Your task to perform on an android device: toggle notifications settings in the gmail app Image 0: 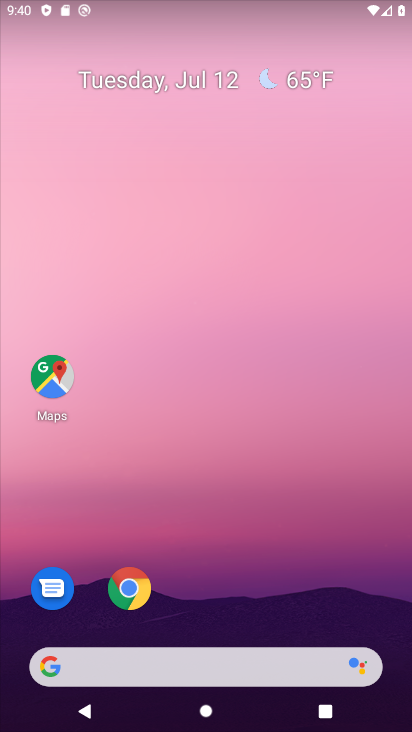
Step 0: drag from (39, 706) to (411, 331)
Your task to perform on an android device: toggle notifications settings in the gmail app Image 1: 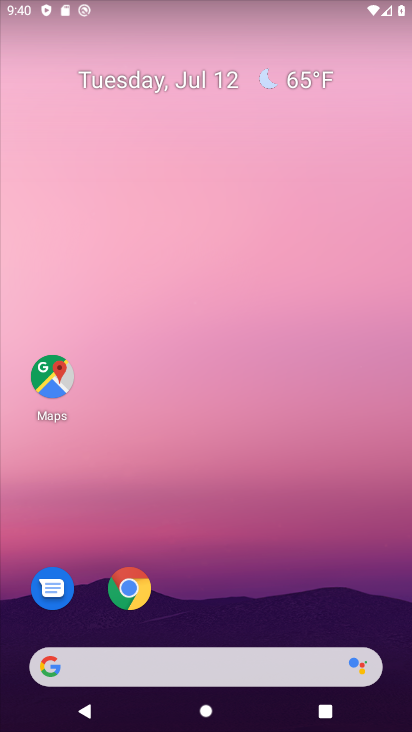
Step 1: drag from (43, 694) to (403, 332)
Your task to perform on an android device: toggle notifications settings in the gmail app Image 2: 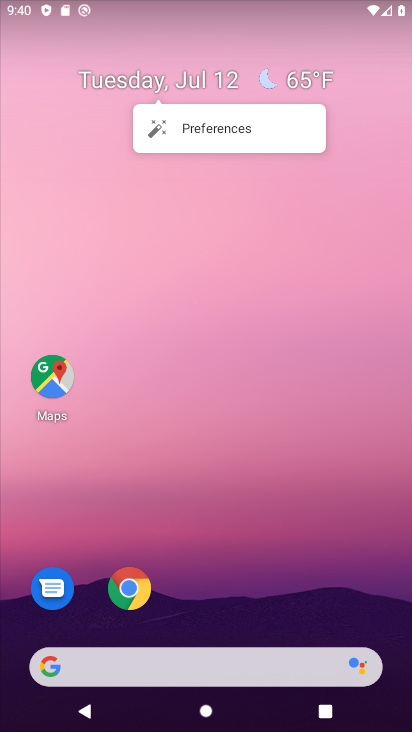
Step 2: drag from (17, 701) to (272, 9)
Your task to perform on an android device: toggle notifications settings in the gmail app Image 3: 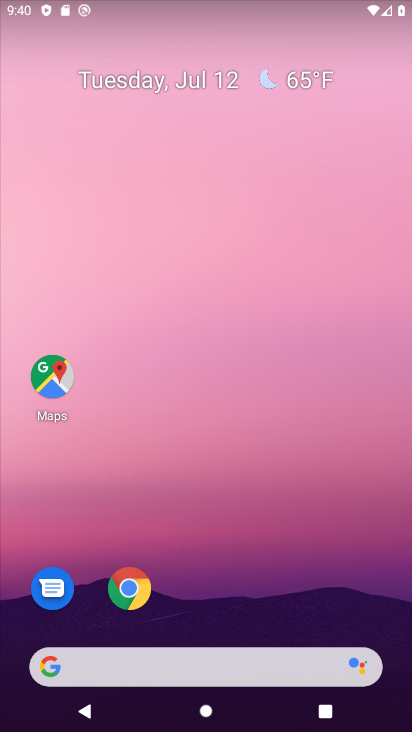
Step 3: drag from (16, 714) to (188, 125)
Your task to perform on an android device: toggle notifications settings in the gmail app Image 4: 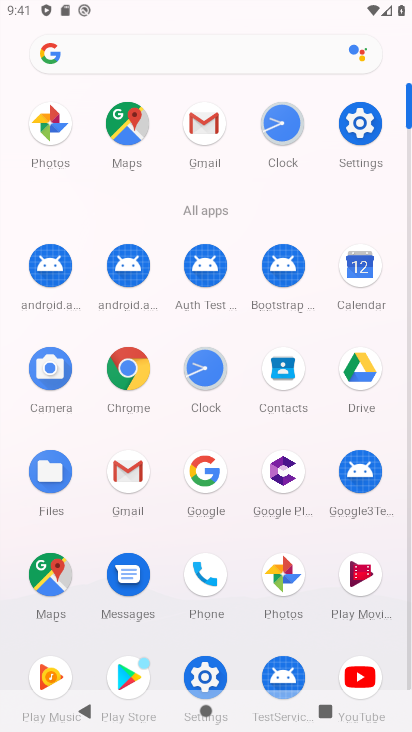
Step 4: click (125, 473)
Your task to perform on an android device: toggle notifications settings in the gmail app Image 5: 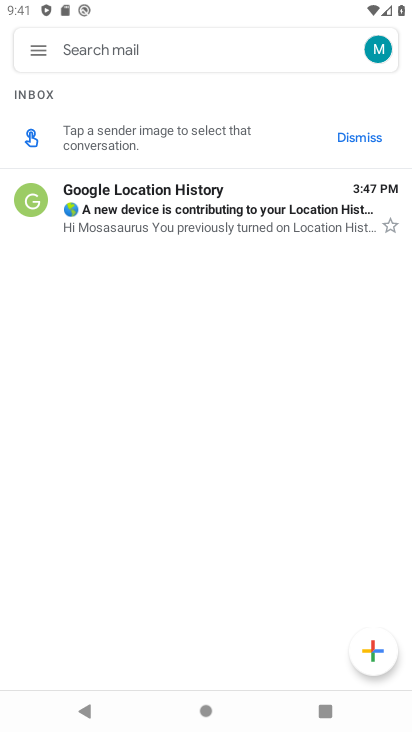
Step 5: click (33, 42)
Your task to perform on an android device: toggle notifications settings in the gmail app Image 6: 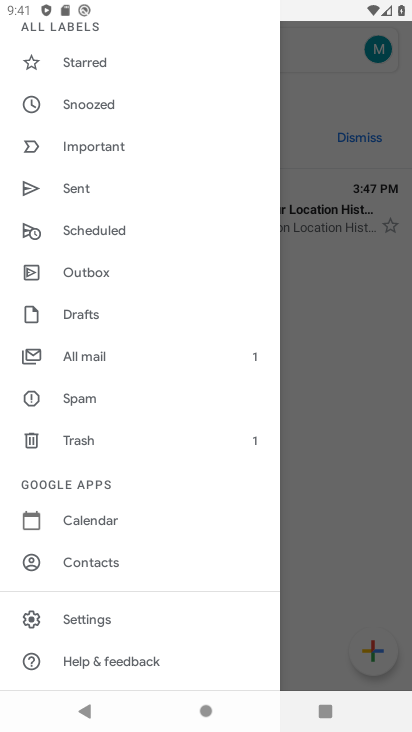
Step 6: click (88, 622)
Your task to perform on an android device: toggle notifications settings in the gmail app Image 7: 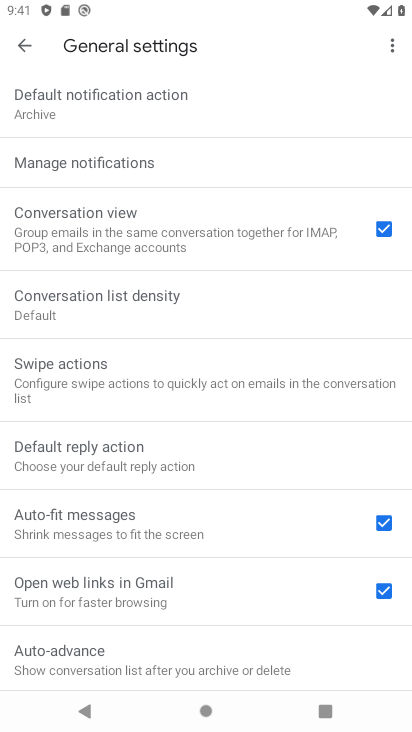
Step 7: click (122, 161)
Your task to perform on an android device: toggle notifications settings in the gmail app Image 8: 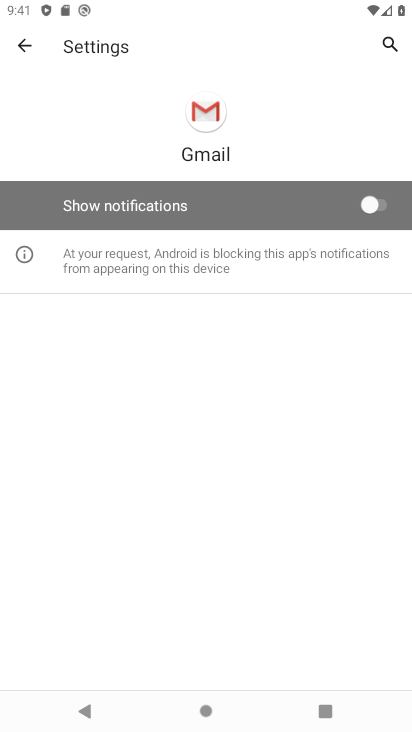
Step 8: click (370, 201)
Your task to perform on an android device: toggle notifications settings in the gmail app Image 9: 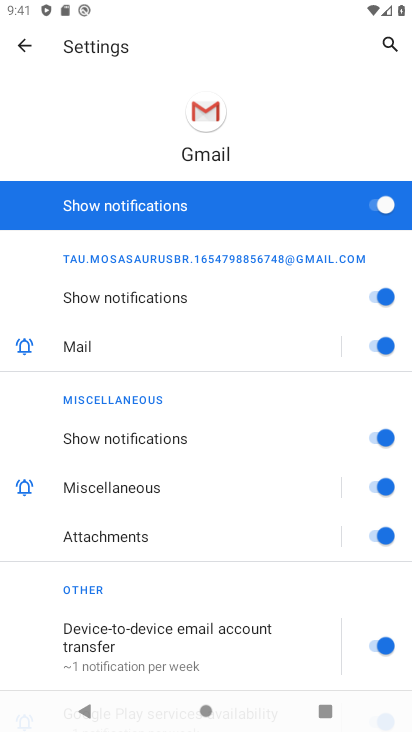
Step 9: task complete